Your task to perform on an android device: turn notification dots on Image 0: 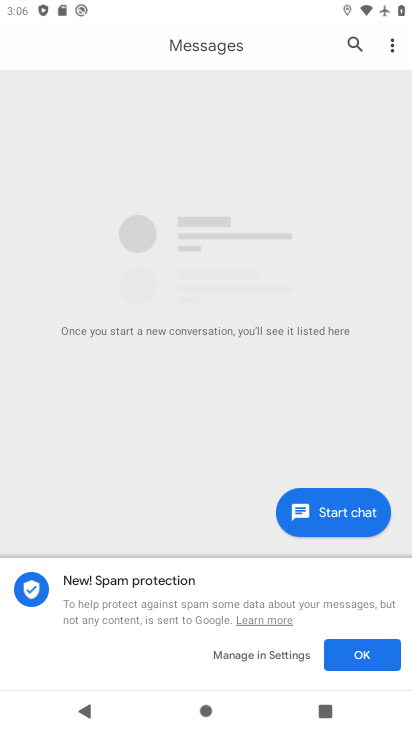
Step 0: press home button
Your task to perform on an android device: turn notification dots on Image 1: 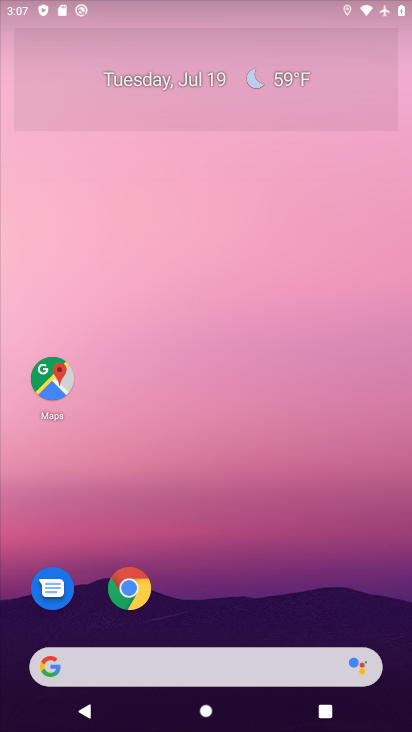
Step 1: drag from (252, 590) to (276, 36)
Your task to perform on an android device: turn notification dots on Image 2: 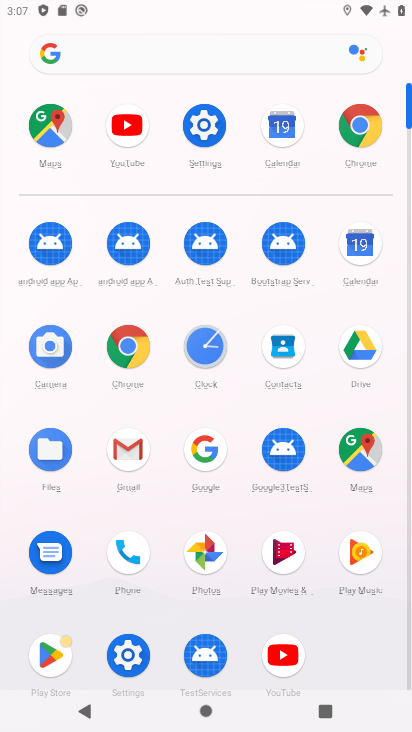
Step 2: click (208, 124)
Your task to perform on an android device: turn notification dots on Image 3: 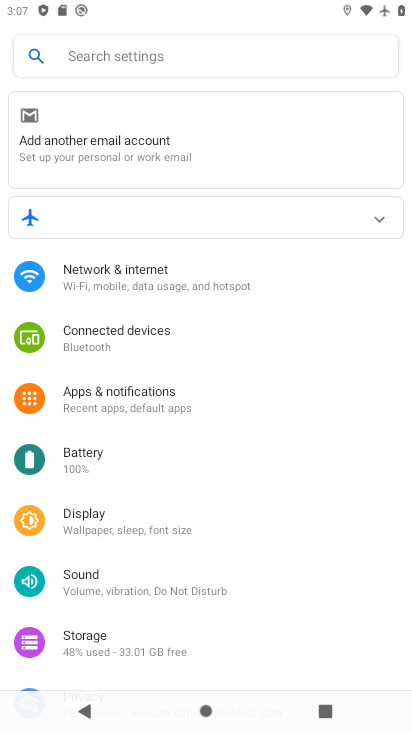
Step 3: click (148, 385)
Your task to perform on an android device: turn notification dots on Image 4: 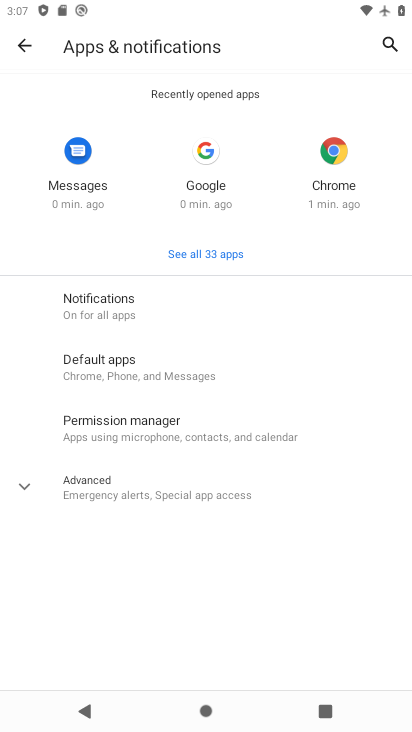
Step 4: click (25, 488)
Your task to perform on an android device: turn notification dots on Image 5: 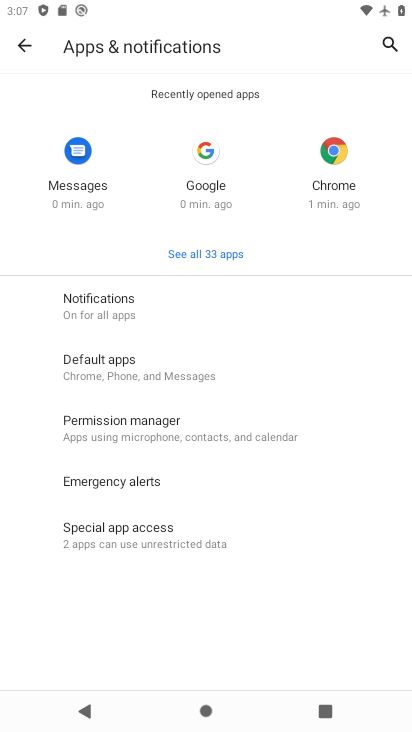
Step 5: click (87, 307)
Your task to perform on an android device: turn notification dots on Image 6: 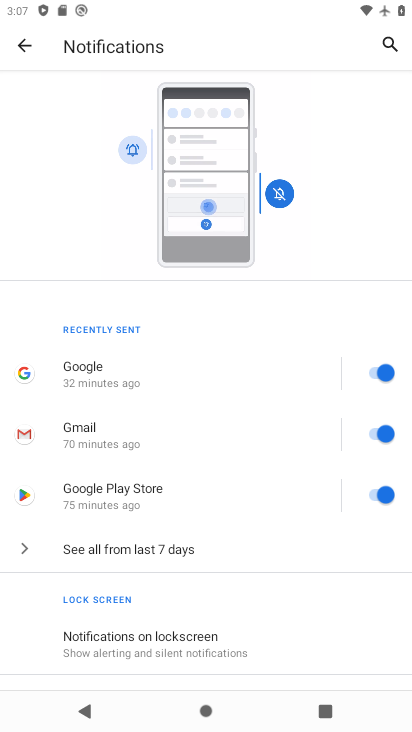
Step 6: drag from (215, 599) to (222, 208)
Your task to perform on an android device: turn notification dots on Image 7: 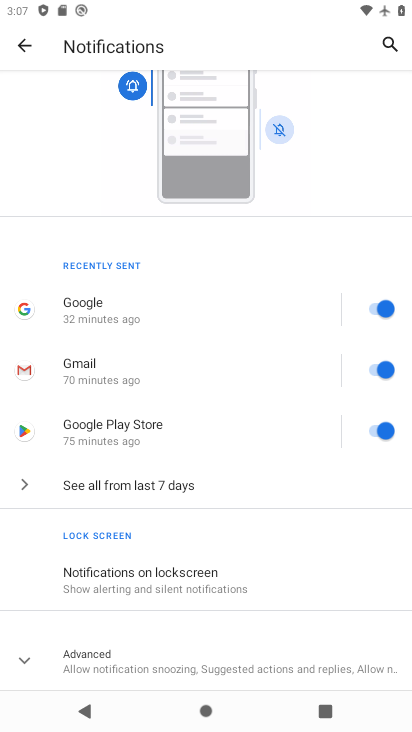
Step 7: click (31, 668)
Your task to perform on an android device: turn notification dots on Image 8: 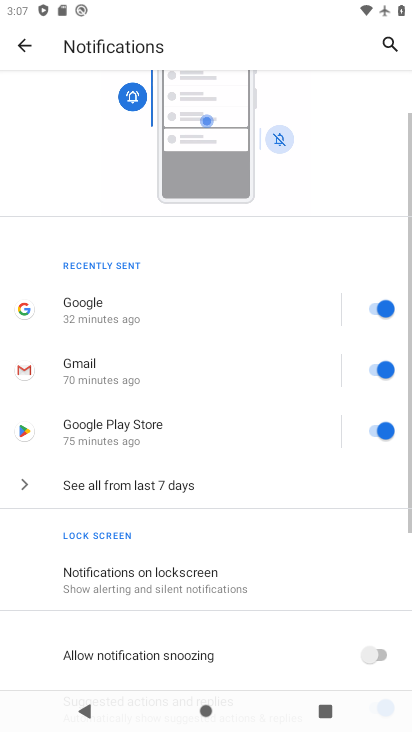
Step 8: task complete